Your task to perform on an android device: Check the news Image 0: 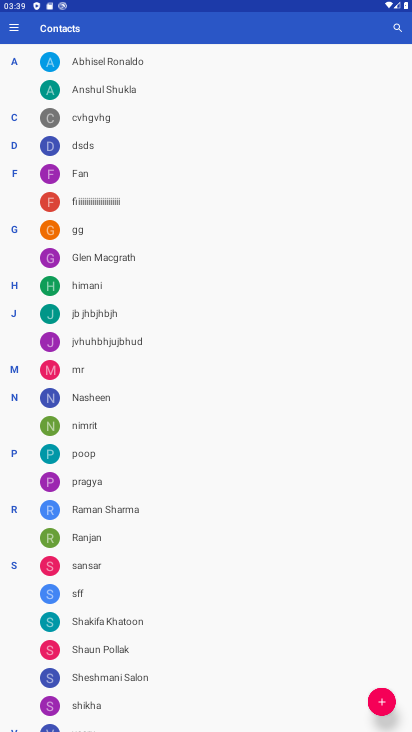
Step 0: press home button
Your task to perform on an android device: Check the news Image 1: 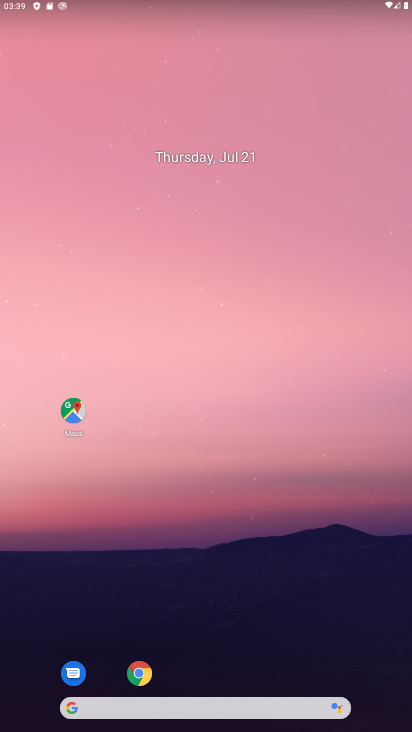
Step 1: drag from (284, 630) to (212, 42)
Your task to perform on an android device: Check the news Image 2: 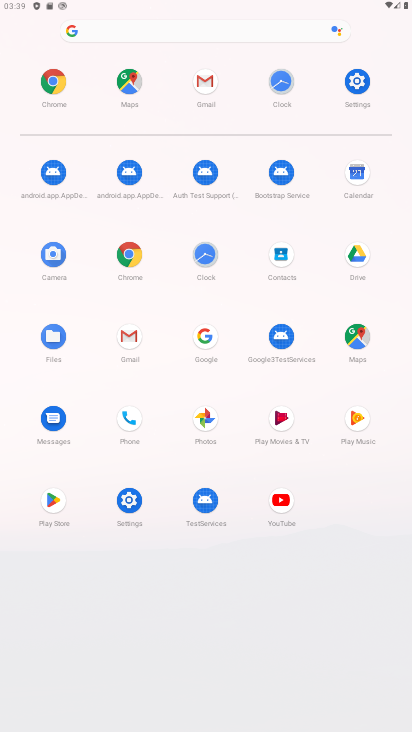
Step 2: click (50, 87)
Your task to perform on an android device: Check the news Image 3: 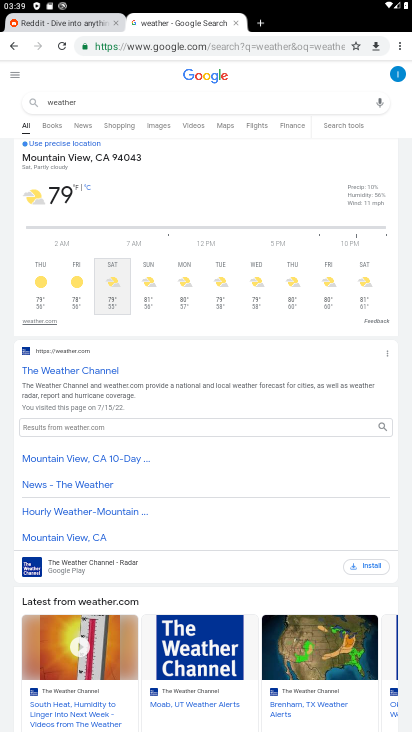
Step 3: click (237, 39)
Your task to perform on an android device: Check the news Image 4: 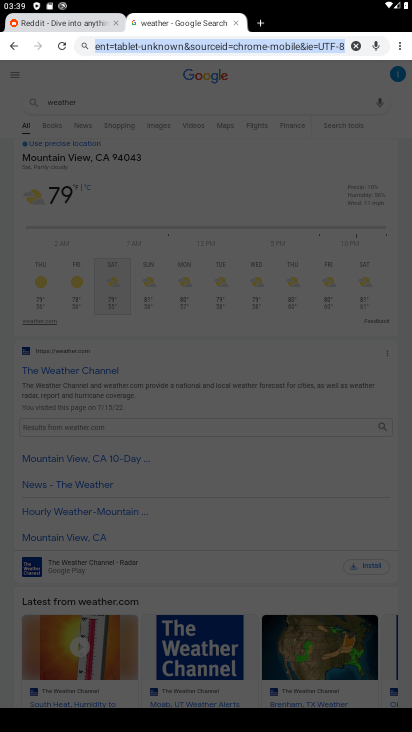
Step 4: type "news"
Your task to perform on an android device: Check the news Image 5: 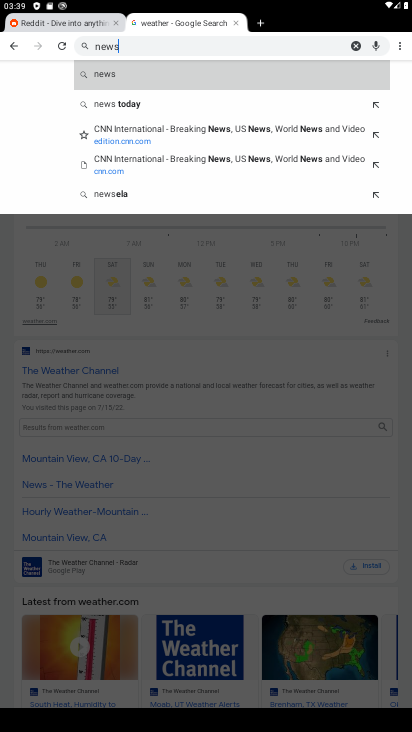
Step 5: click (122, 68)
Your task to perform on an android device: Check the news Image 6: 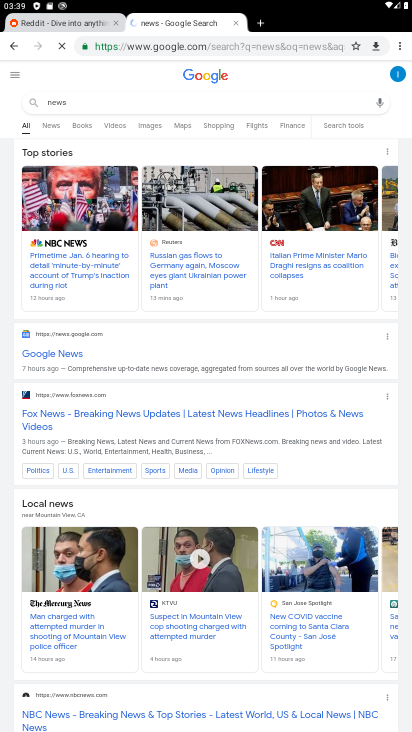
Step 6: click (54, 128)
Your task to perform on an android device: Check the news Image 7: 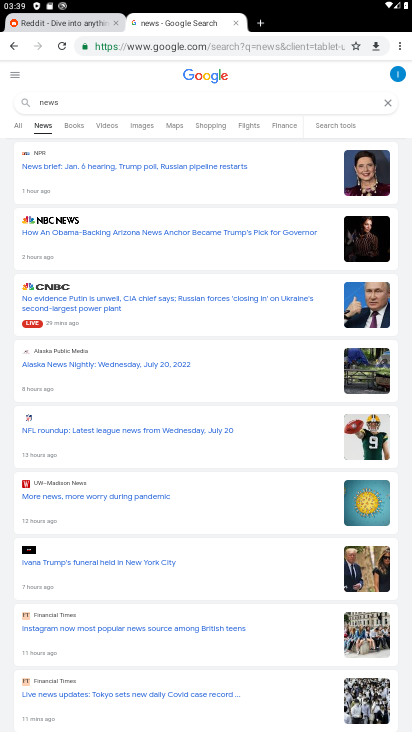
Step 7: task complete